Your task to perform on an android device: open app "Yahoo Mail" (install if not already installed) and go to login screen Image 0: 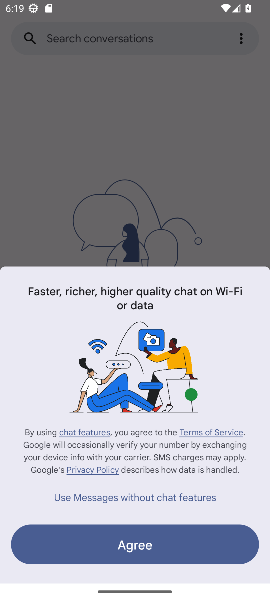
Step 0: press home button
Your task to perform on an android device: open app "Yahoo Mail" (install if not already installed) and go to login screen Image 1: 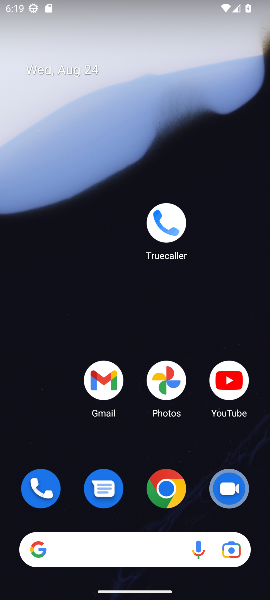
Step 1: drag from (120, 510) to (108, 147)
Your task to perform on an android device: open app "Yahoo Mail" (install if not already installed) and go to login screen Image 2: 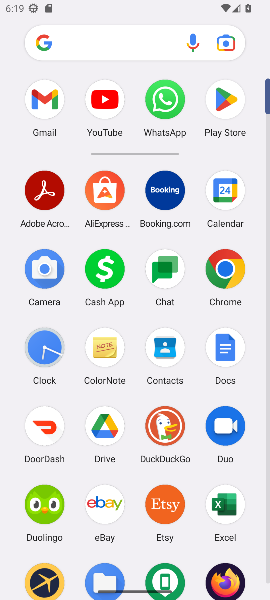
Step 2: click (234, 98)
Your task to perform on an android device: open app "Yahoo Mail" (install if not already installed) and go to login screen Image 3: 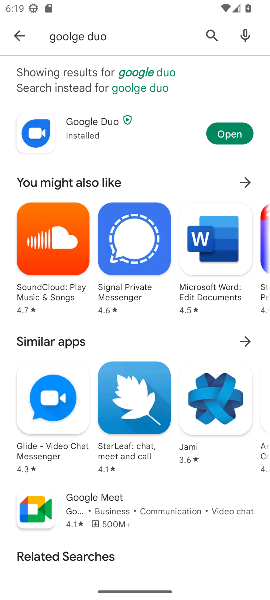
Step 3: click (212, 37)
Your task to perform on an android device: open app "Yahoo Mail" (install if not already installed) and go to login screen Image 4: 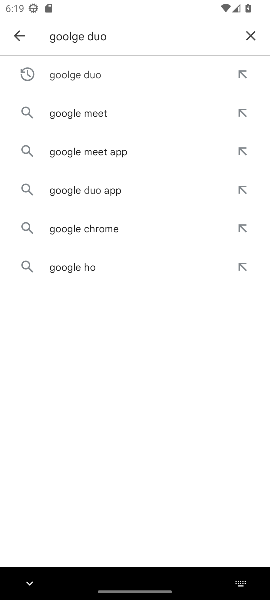
Step 4: click (247, 37)
Your task to perform on an android device: open app "Yahoo Mail" (install if not already installed) and go to login screen Image 5: 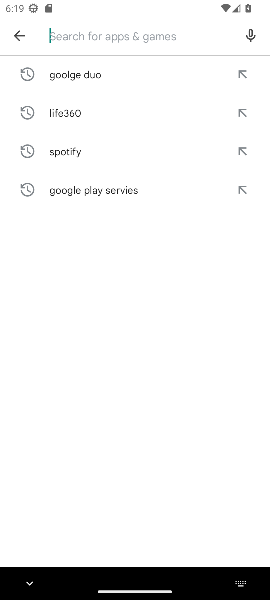
Step 5: type "yahoo mail"
Your task to perform on an android device: open app "Yahoo Mail" (install if not already installed) and go to login screen Image 6: 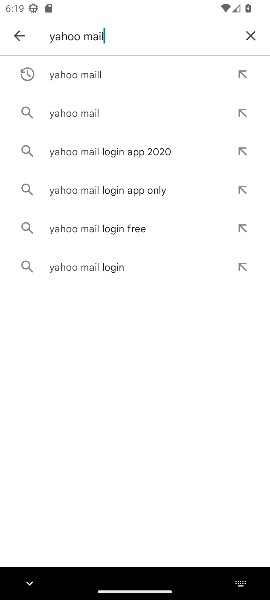
Step 6: click (135, 77)
Your task to perform on an android device: open app "Yahoo Mail" (install if not already installed) and go to login screen Image 7: 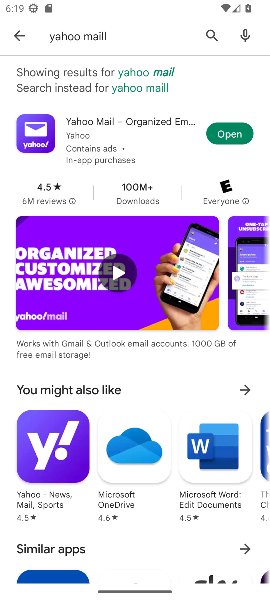
Step 7: click (227, 138)
Your task to perform on an android device: open app "Yahoo Mail" (install if not already installed) and go to login screen Image 8: 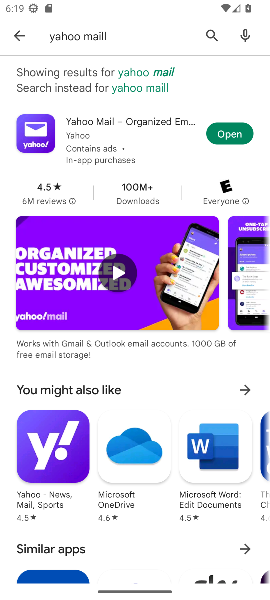
Step 8: task complete